Your task to perform on an android device: open app "Truecaller" Image 0: 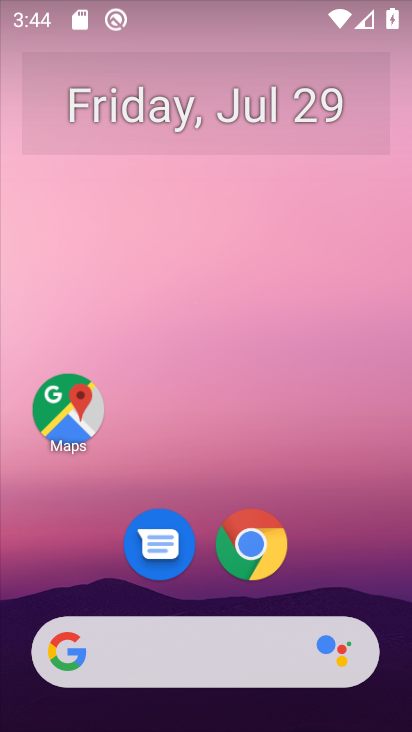
Step 0: drag from (208, 719) to (196, 347)
Your task to perform on an android device: open app "Truecaller" Image 1: 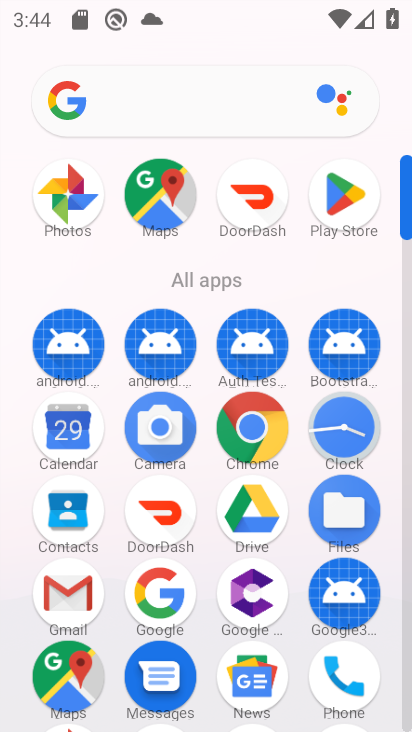
Step 1: task complete